Your task to perform on an android device: When is my next appointment? Image 0: 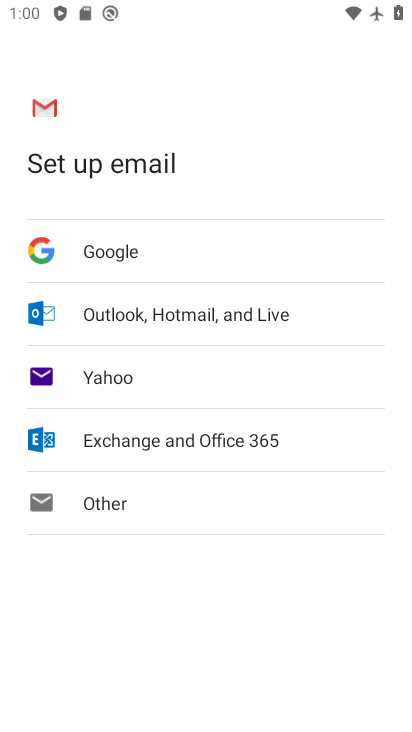
Step 0: press home button
Your task to perform on an android device: When is my next appointment? Image 1: 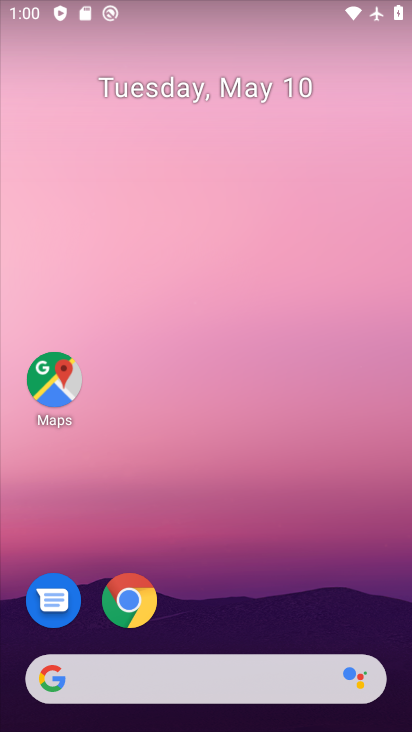
Step 1: drag from (262, 681) to (244, 284)
Your task to perform on an android device: When is my next appointment? Image 2: 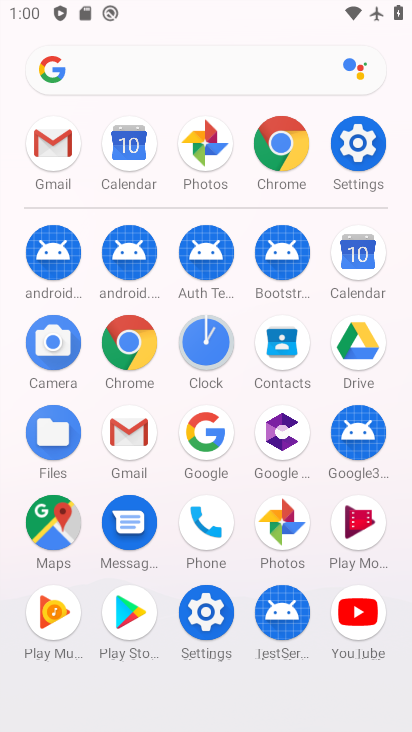
Step 2: click (363, 262)
Your task to perform on an android device: When is my next appointment? Image 3: 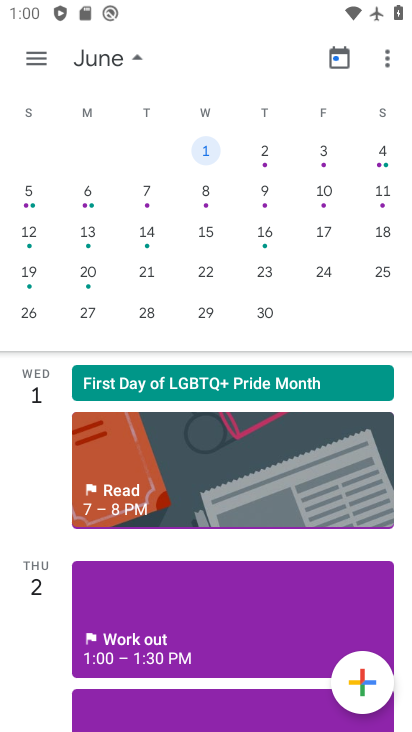
Step 3: drag from (184, 441) to (198, 264)
Your task to perform on an android device: When is my next appointment? Image 4: 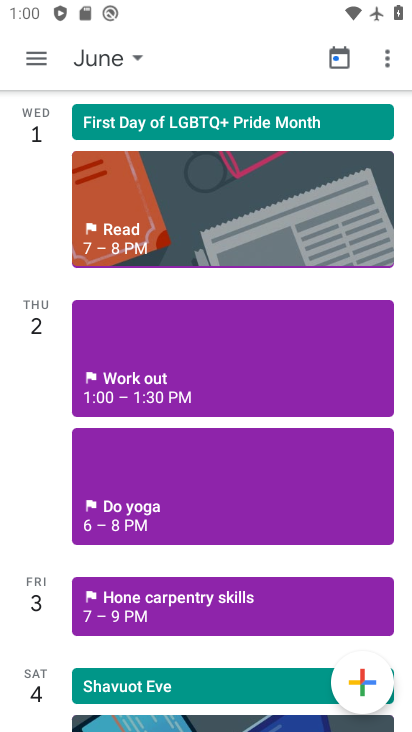
Step 4: drag from (84, 297) to (30, 504)
Your task to perform on an android device: When is my next appointment? Image 5: 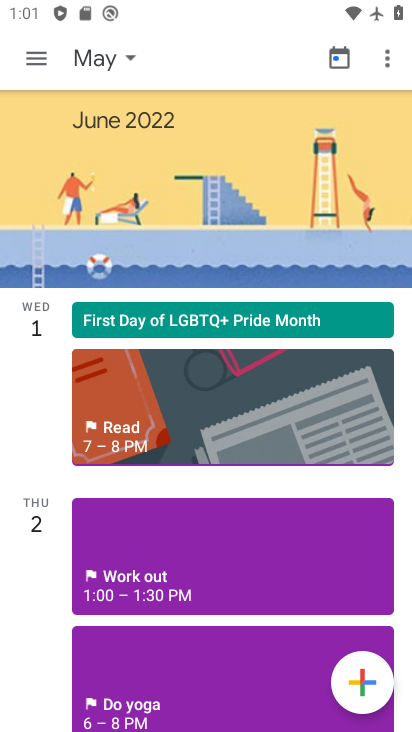
Step 5: click (124, 67)
Your task to perform on an android device: When is my next appointment? Image 6: 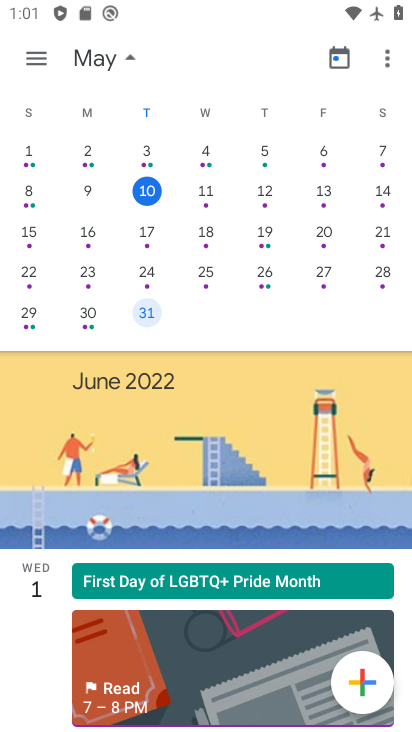
Step 6: click (151, 200)
Your task to perform on an android device: When is my next appointment? Image 7: 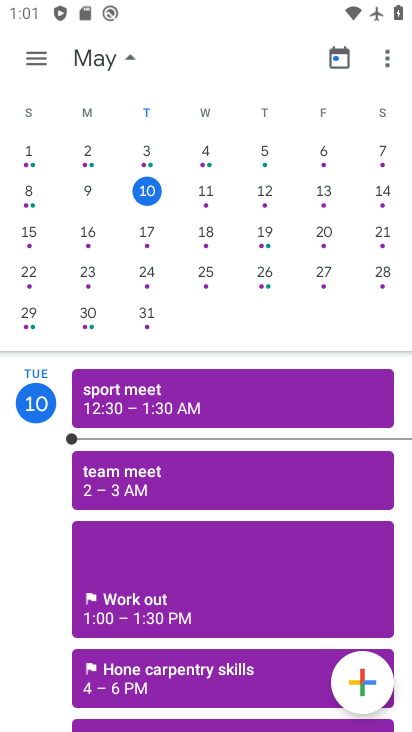
Step 7: task complete